Your task to perform on an android device: Show the shopping cart on walmart. Add "corsair k70" to the cart on walmart, then select checkout. Image 0: 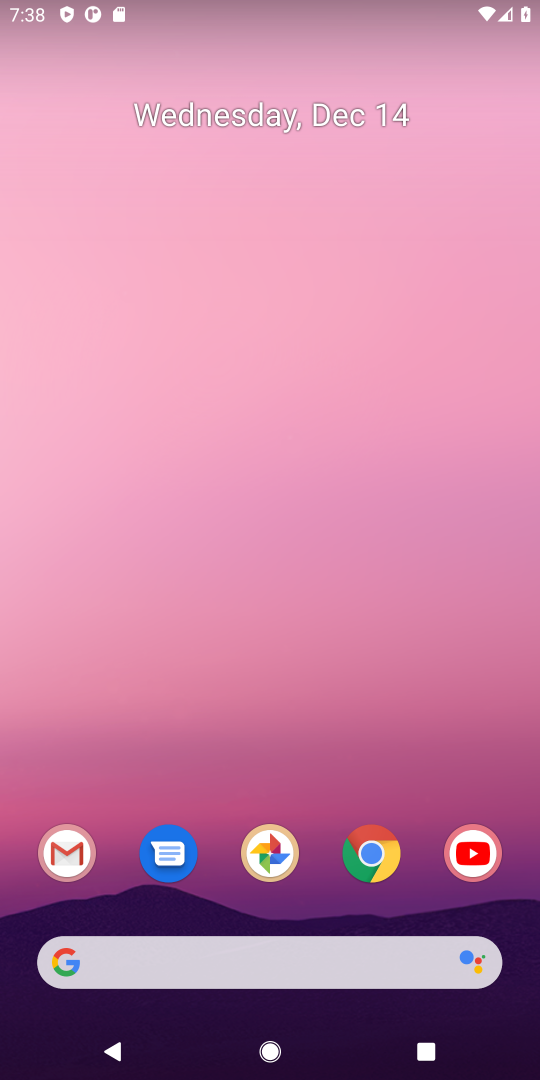
Step 0: click (368, 865)
Your task to perform on an android device: Show the shopping cart on walmart. Add "corsair k70" to the cart on walmart, then select checkout. Image 1: 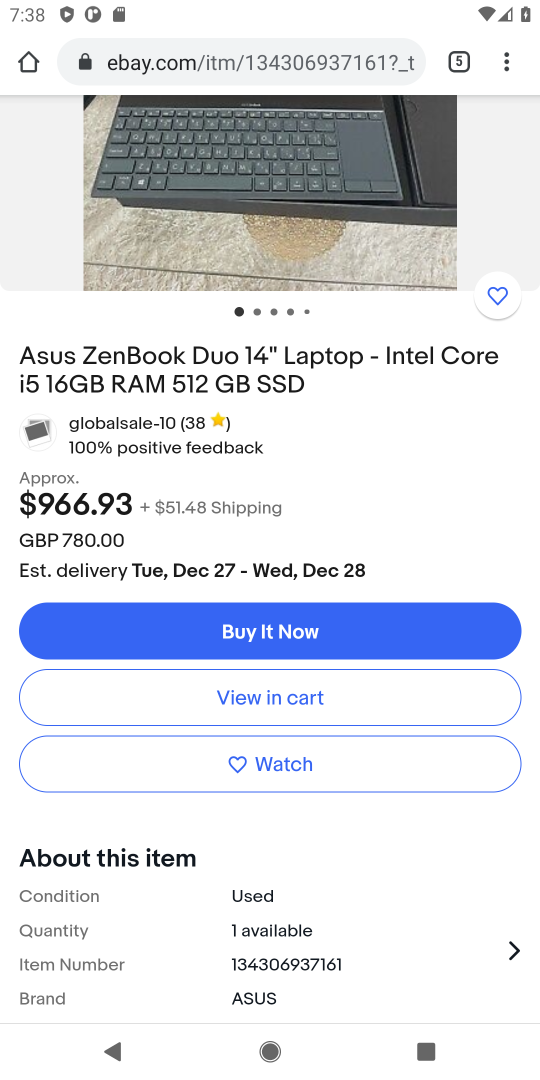
Step 1: click (462, 55)
Your task to perform on an android device: Show the shopping cart on walmart. Add "corsair k70" to the cart on walmart, then select checkout. Image 2: 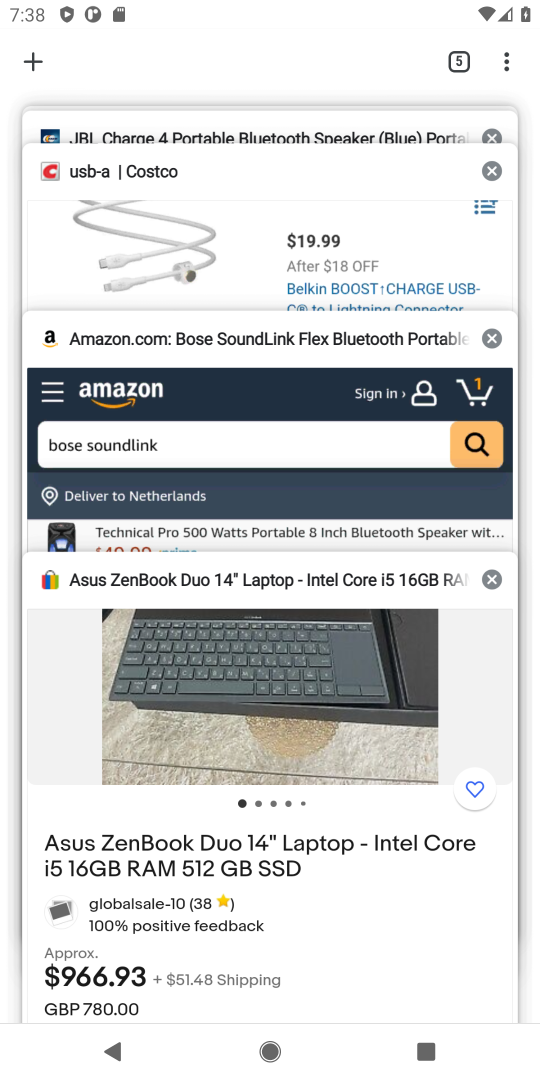
Step 2: drag from (219, 119) to (173, 280)
Your task to perform on an android device: Show the shopping cart on walmart. Add "corsair k70" to the cart on walmart, then select checkout. Image 3: 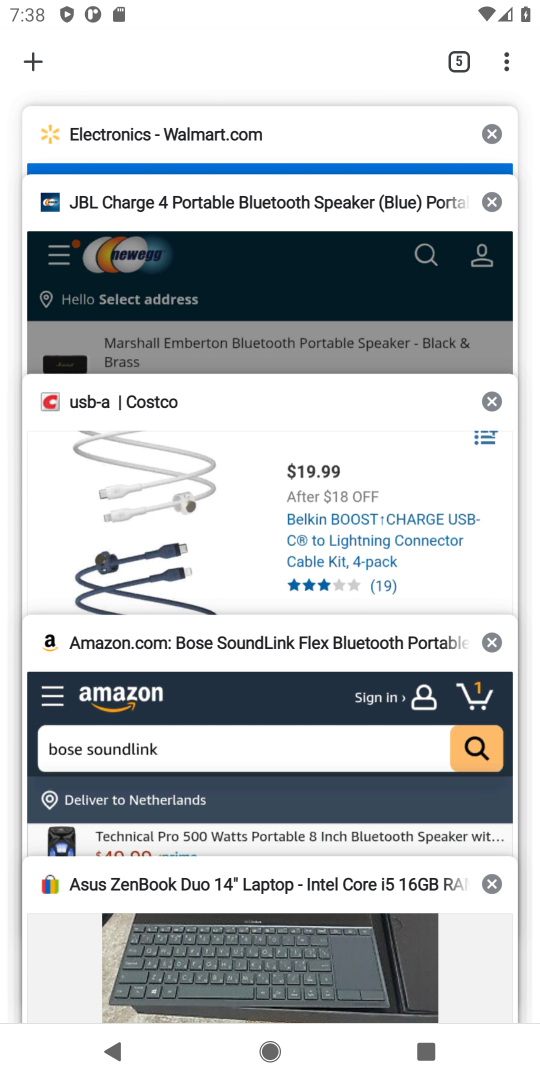
Step 3: click (222, 126)
Your task to perform on an android device: Show the shopping cart on walmart. Add "corsair k70" to the cart on walmart, then select checkout. Image 4: 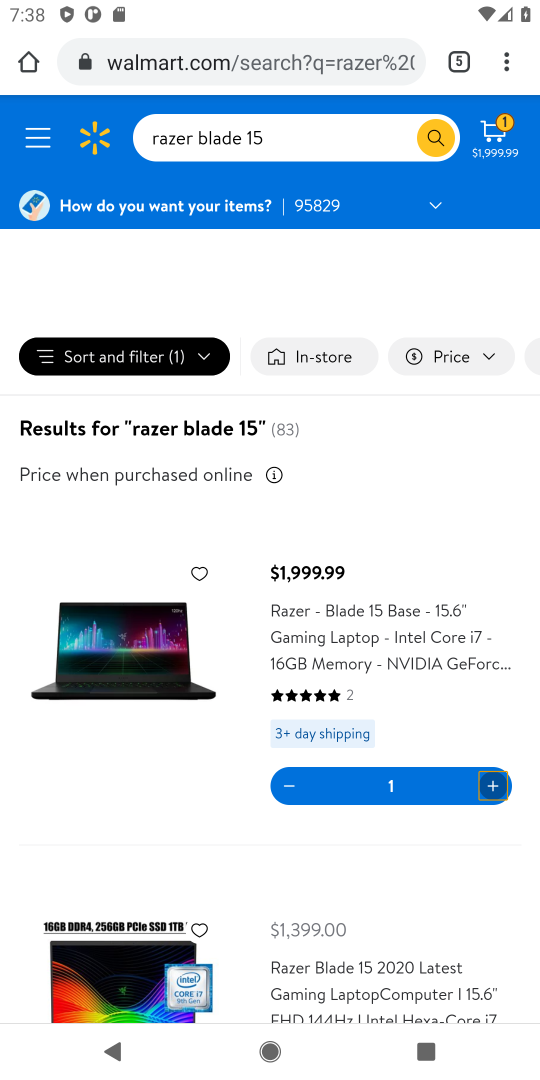
Step 4: click (317, 137)
Your task to perform on an android device: Show the shopping cart on walmart. Add "corsair k70" to the cart on walmart, then select checkout. Image 5: 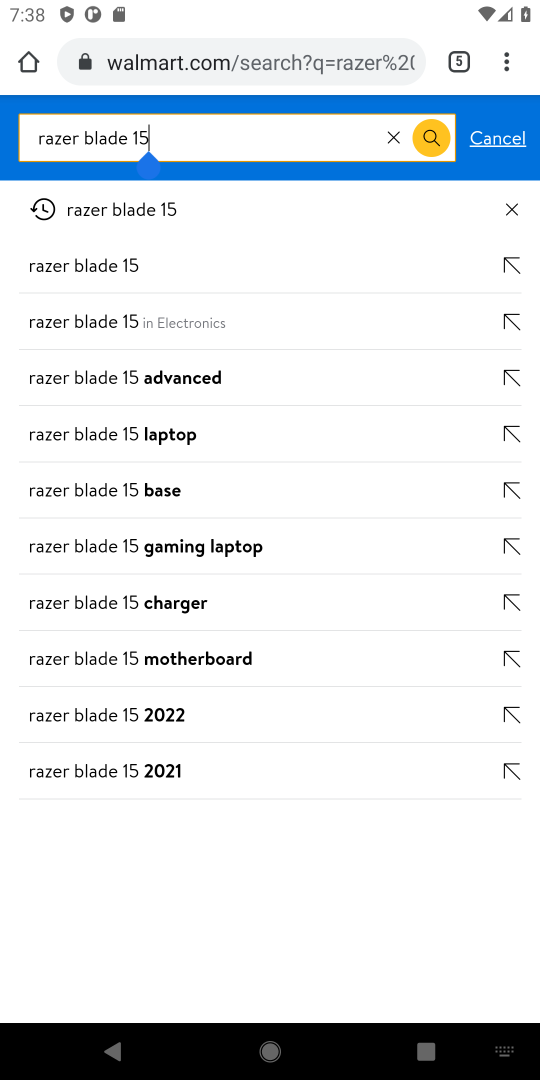
Step 5: click (391, 140)
Your task to perform on an android device: Show the shopping cart on walmart. Add "corsair k70" to the cart on walmart, then select checkout. Image 6: 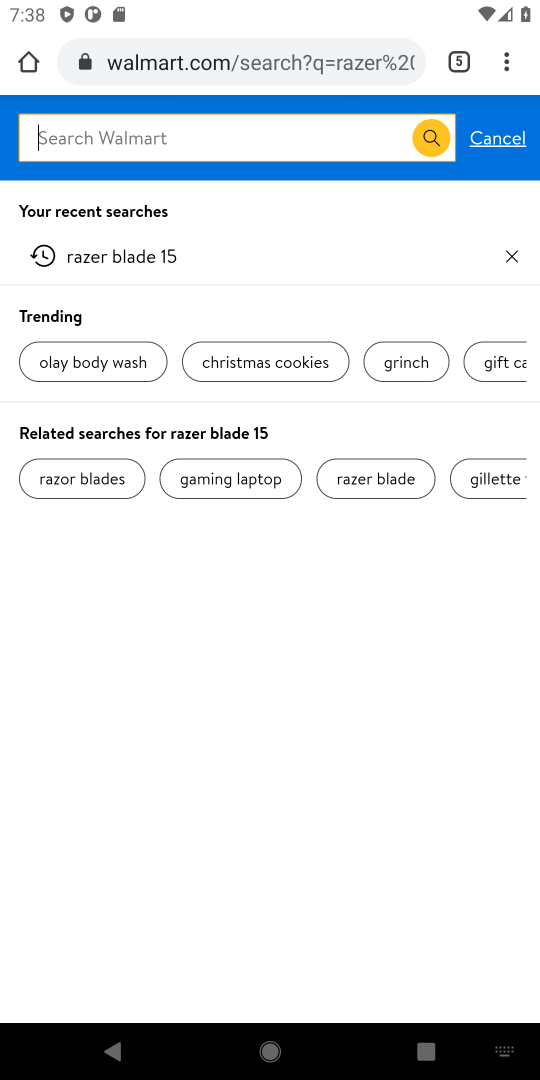
Step 6: type "corsair k70"
Your task to perform on an android device: Show the shopping cart on walmart. Add "corsair k70" to the cart on walmart, then select checkout. Image 7: 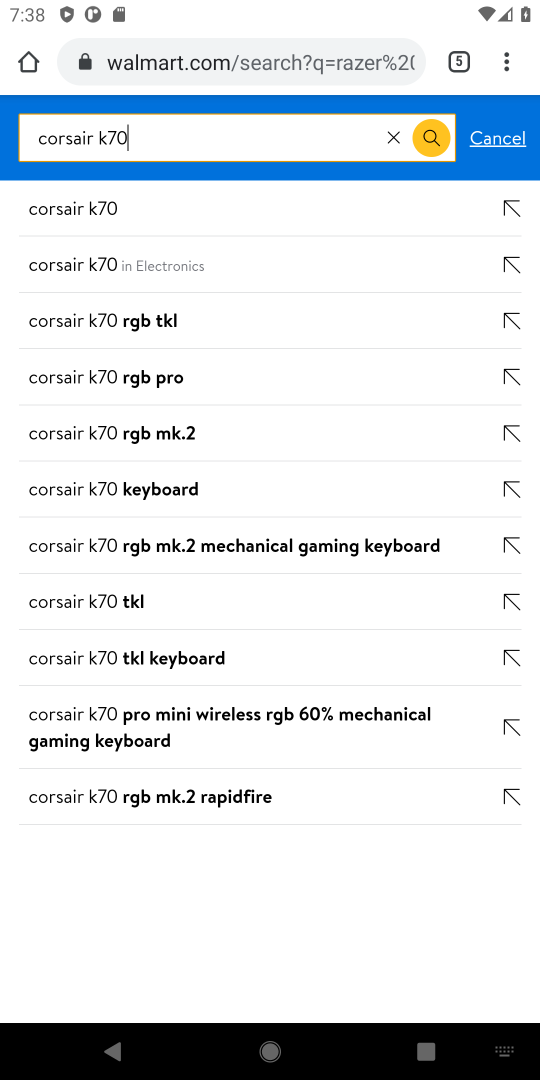
Step 7: click (106, 265)
Your task to perform on an android device: Show the shopping cart on walmart. Add "corsair k70" to the cart on walmart, then select checkout. Image 8: 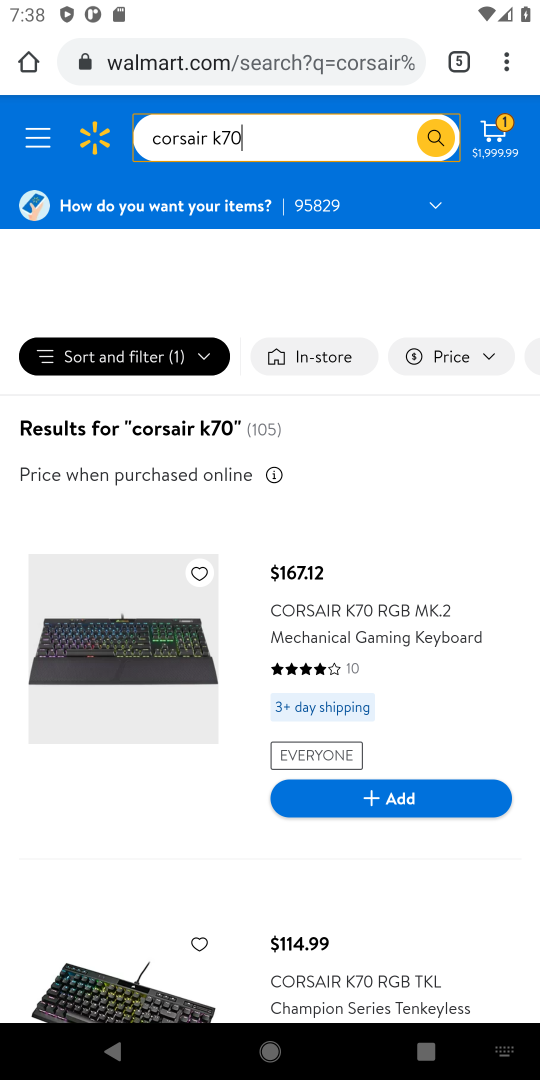
Step 8: click (416, 805)
Your task to perform on an android device: Show the shopping cart on walmart. Add "corsair k70" to the cart on walmart, then select checkout. Image 9: 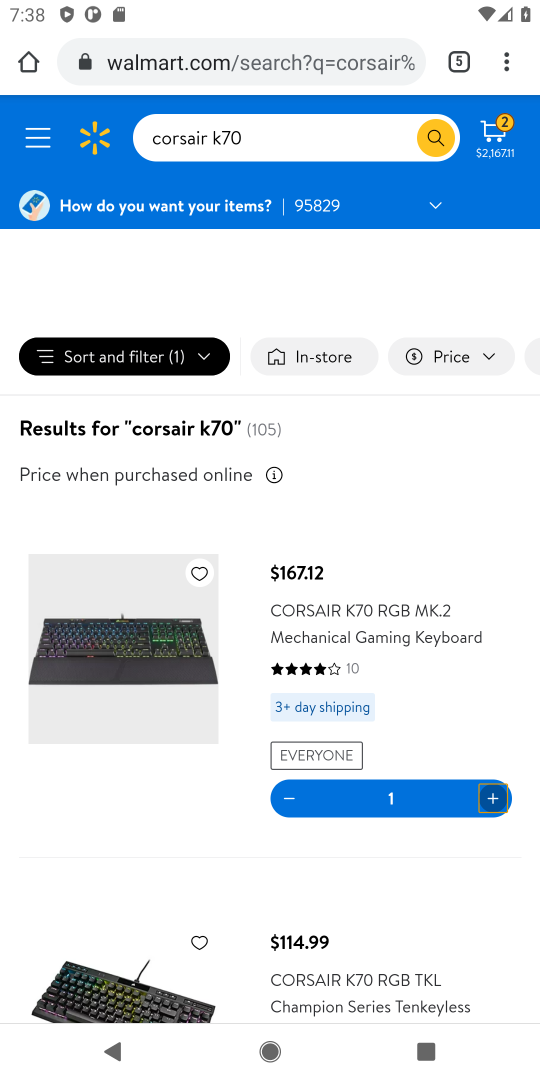
Step 9: task complete